Your task to perform on an android device: Clear all items from cart on bestbuy. Image 0: 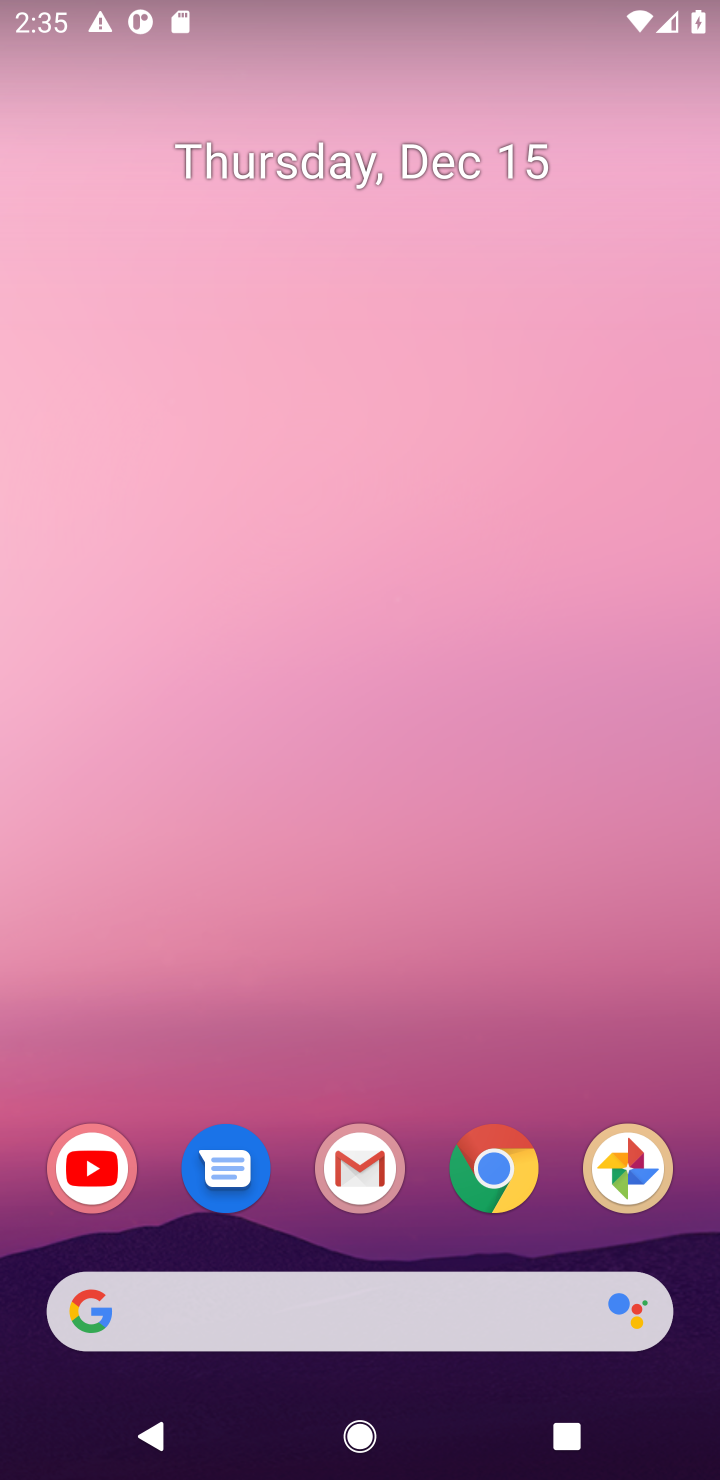
Step 0: click (490, 1169)
Your task to perform on an android device: Clear all items from cart on bestbuy. Image 1: 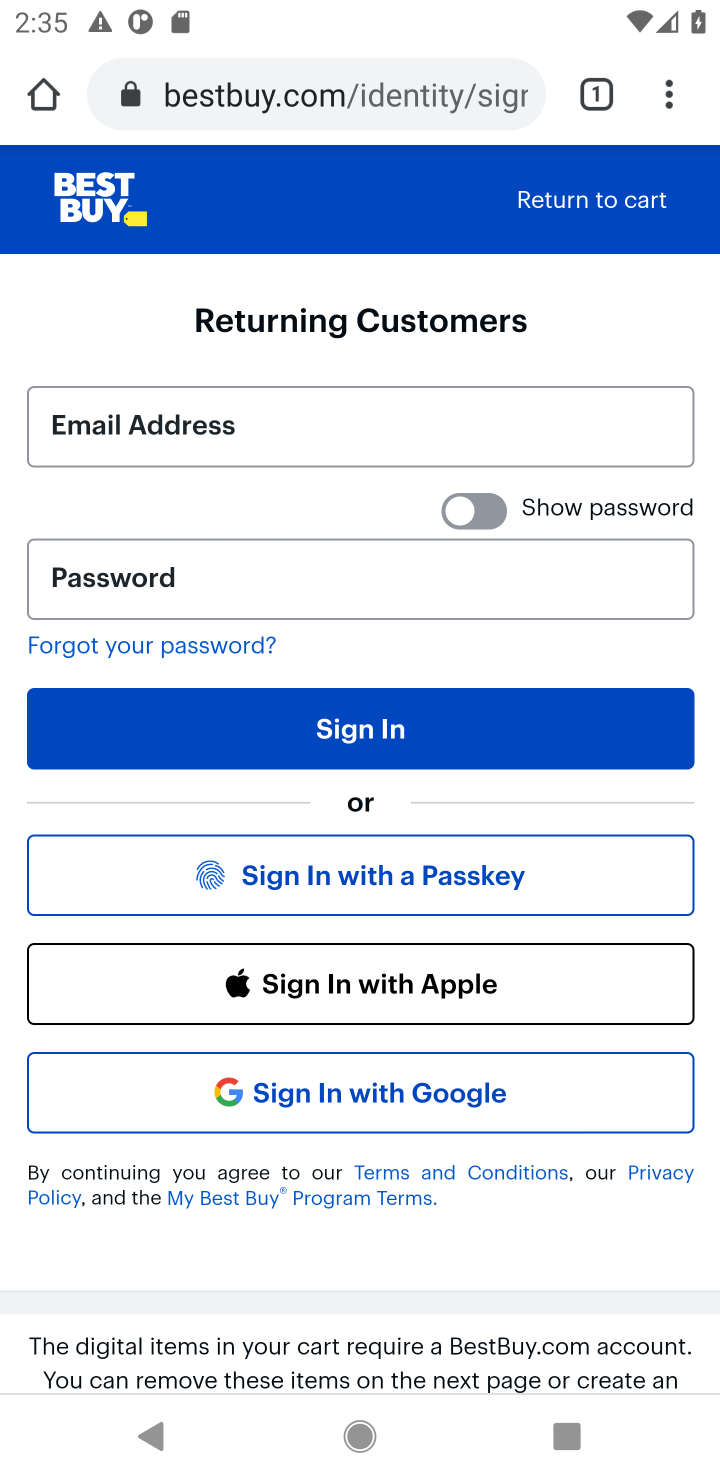
Step 1: click (649, 211)
Your task to perform on an android device: Clear all items from cart on bestbuy. Image 2: 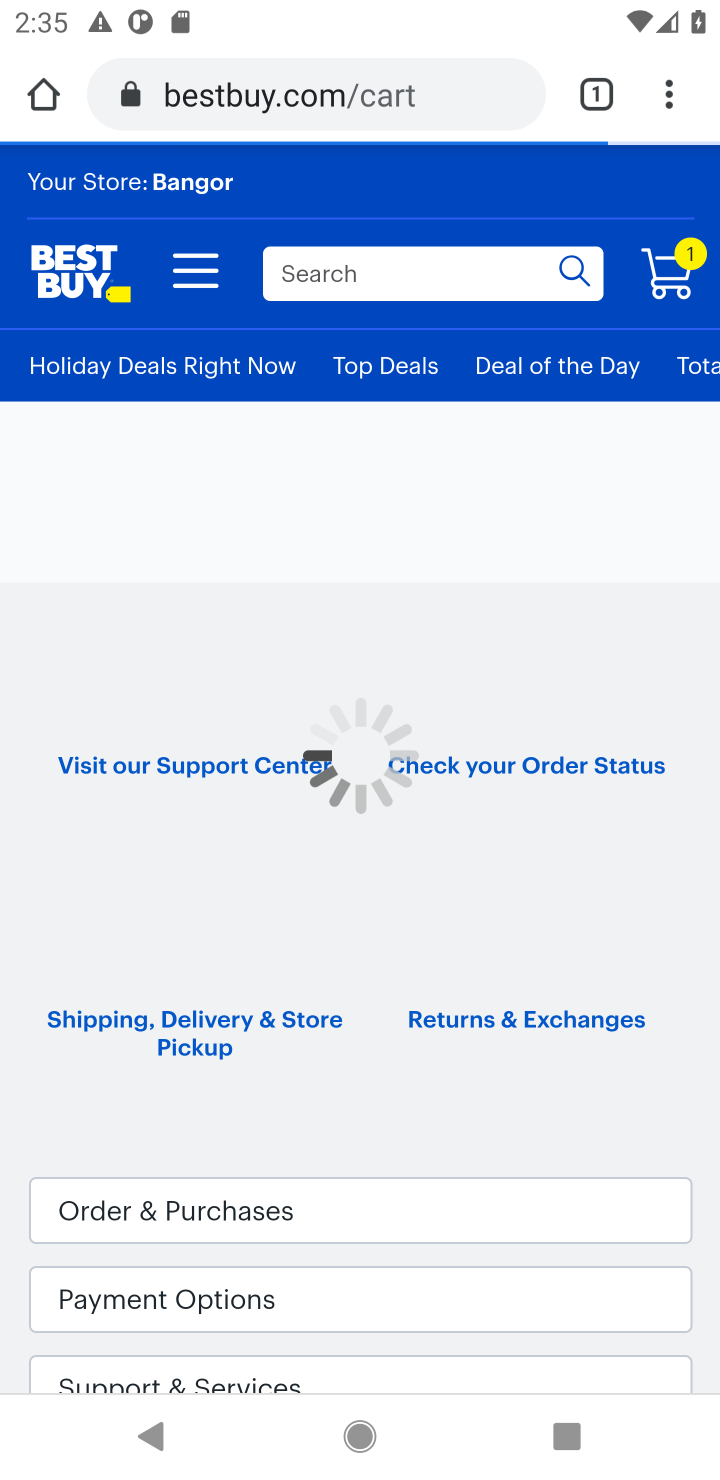
Step 2: click (669, 275)
Your task to perform on an android device: Clear all items from cart on bestbuy. Image 3: 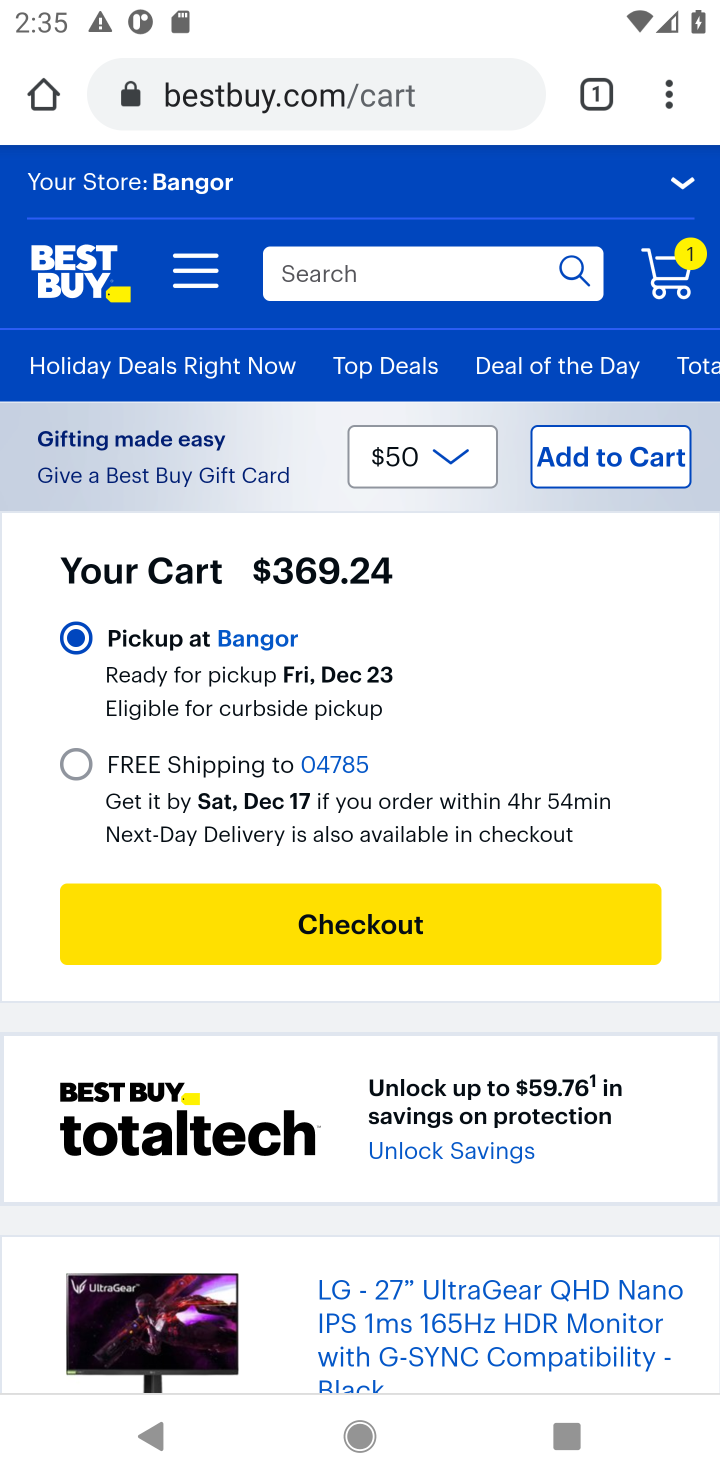
Step 3: drag from (592, 1056) to (692, 602)
Your task to perform on an android device: Clear all items from cart on bestbuy. Image 4: 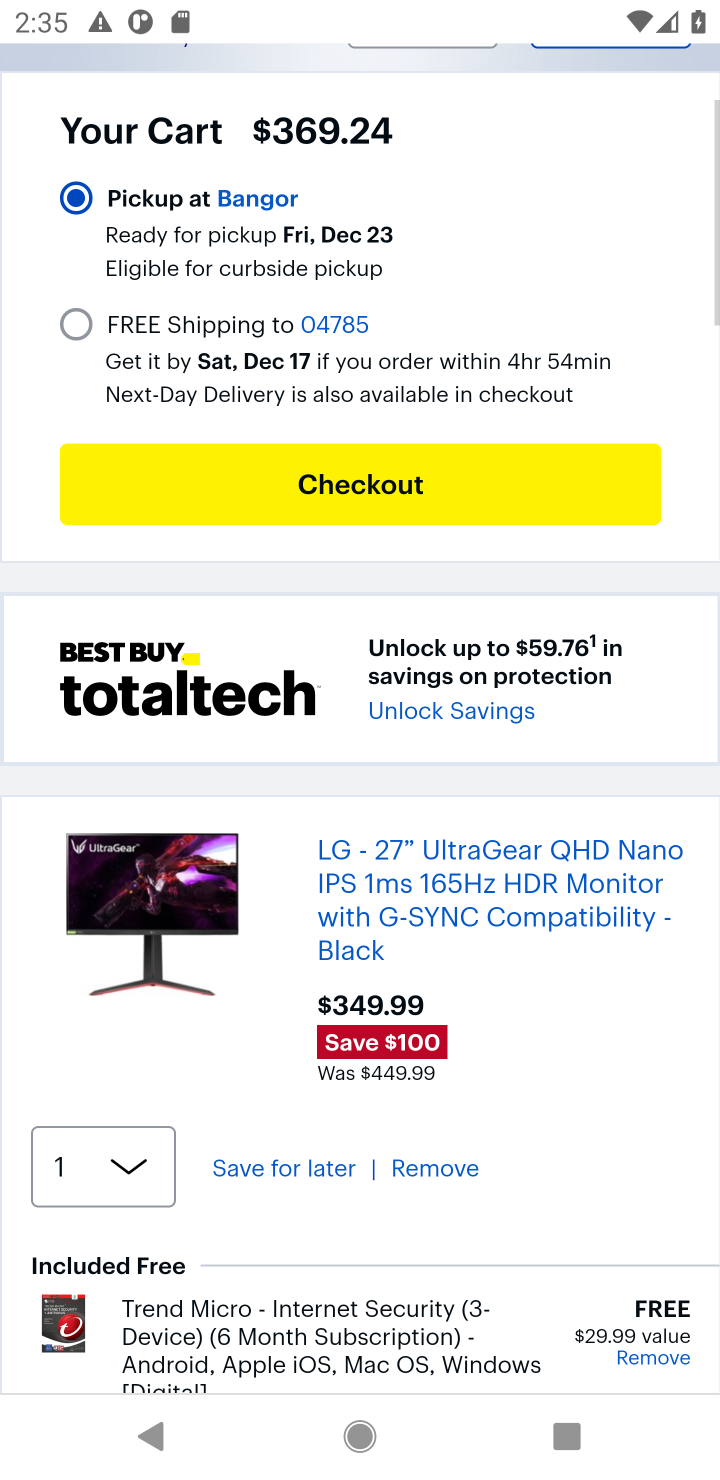
Step 4: click (456, 1171)
Your task to perform on an android device: Clear all items from cart on bestbuy. Image 5: 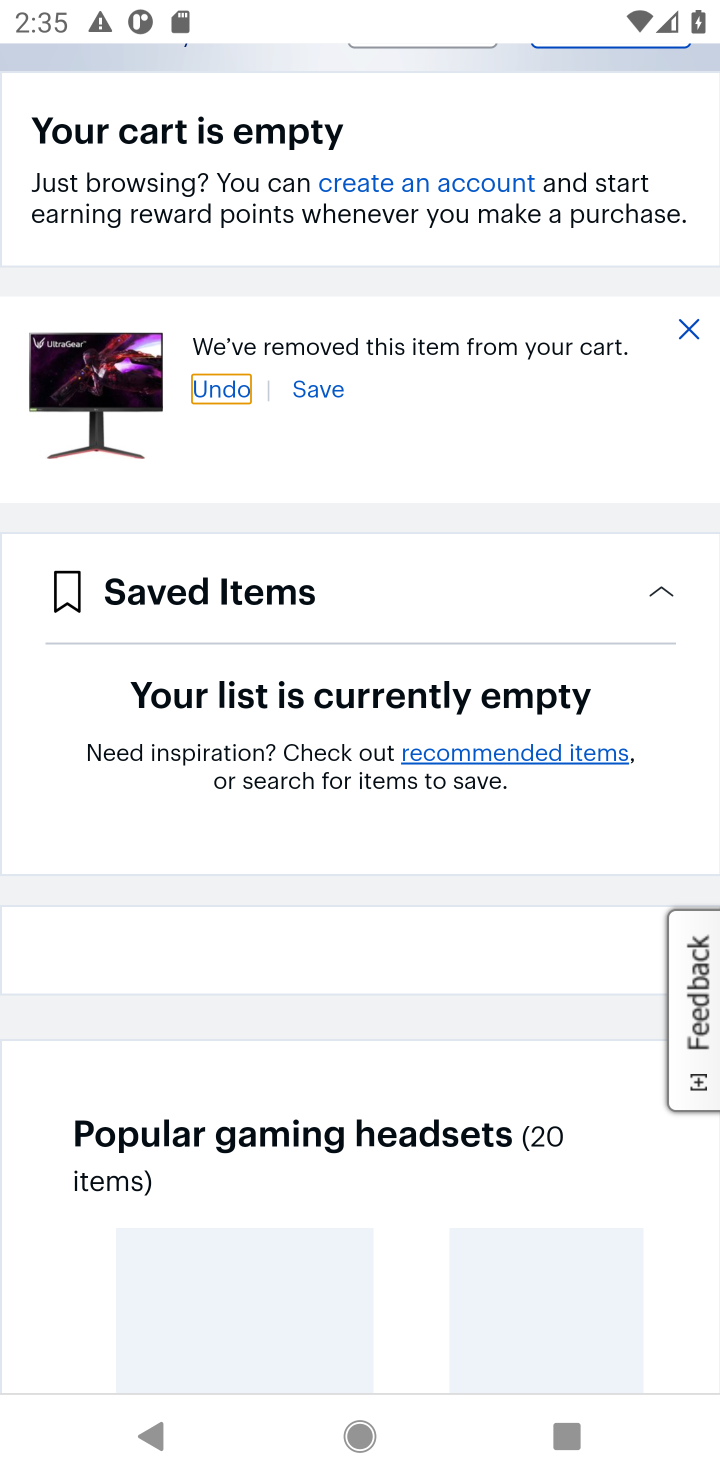
Step 5: click (697, 320)
Your task to perform on an android device: Clear all items from cart on bestbuy. Image 6: 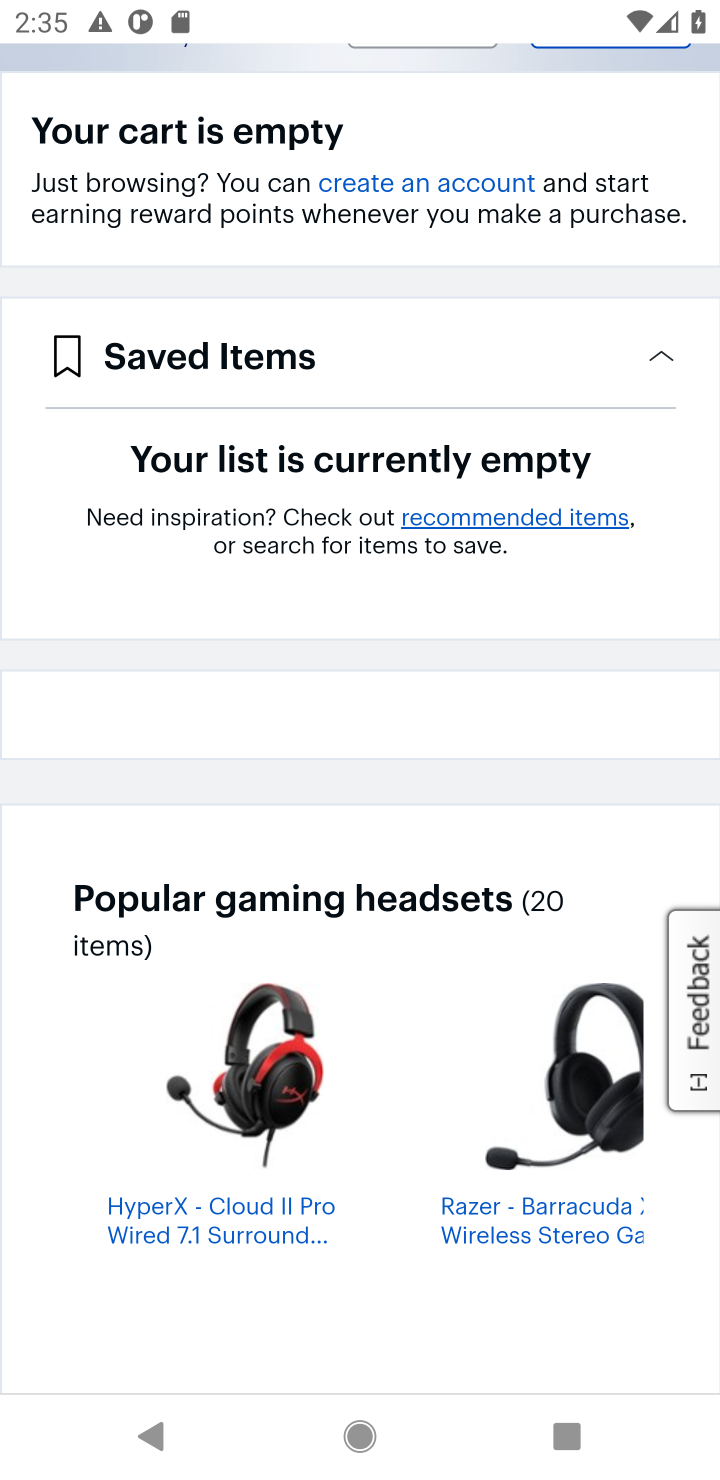
Step 6: task complete